Your task to perform on an android device: Open Chrome and go to settings Image 0: 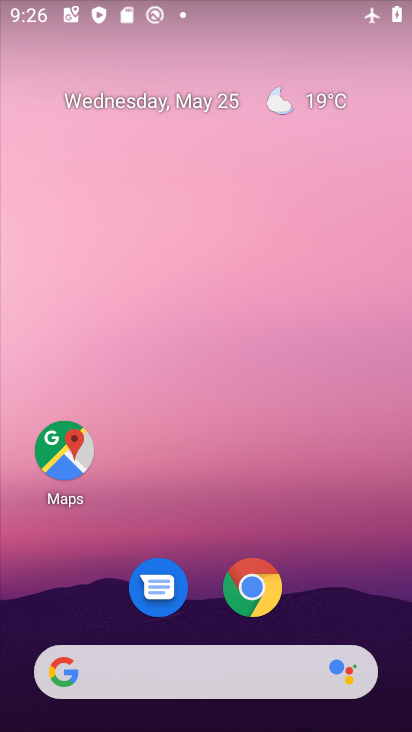
Step 0: click (253, 588)
Your task to perform on an android device: Open Chrome and go to settings Image 1: 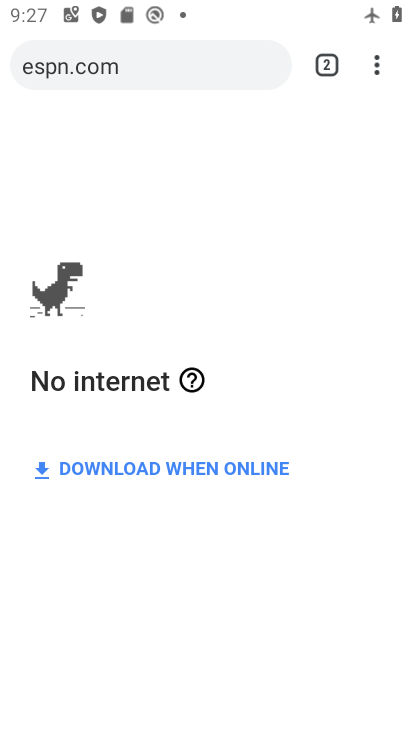
Step 1: click (375, 71)
Your task to perform on an android device: Open Chrome and go to settings Image 2: 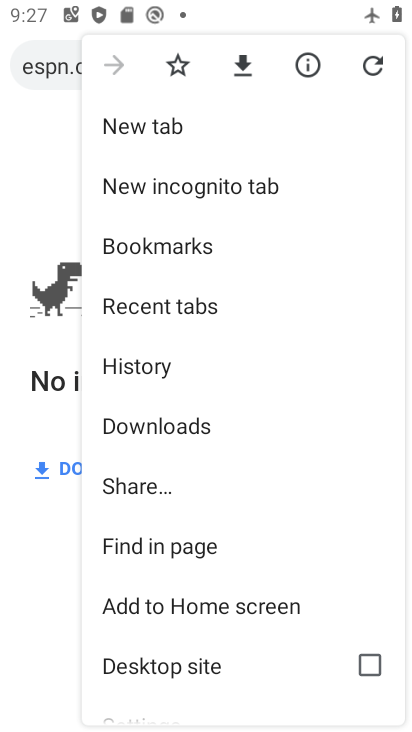
Step 2: drag from (317, 619) to (315, 180)
Your task to perform on an android device: Open Chrome and go to settings Image 3: 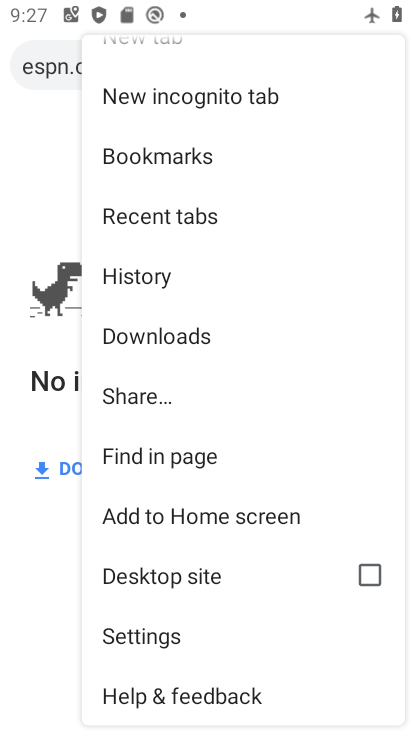
Step 3: click (130, 631)
Your task to perform on an android device: Open Chrome and go to settings Image 4: 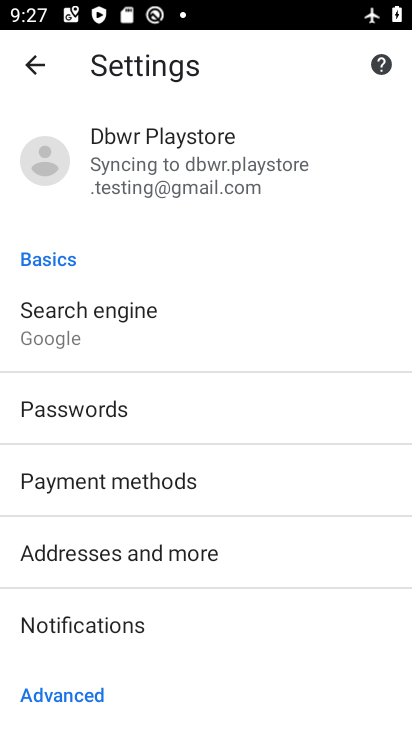
Step 4: task complete